Your task to perform on an android device: Turn off the flashlight Image 0: 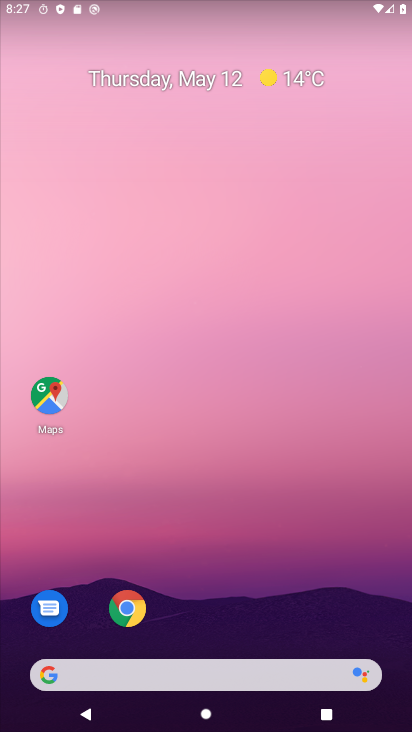
Step 0: drag from (207, 545) to (198, 266)
Your task to perform on an android device: Turn off the flashlight Image 1: 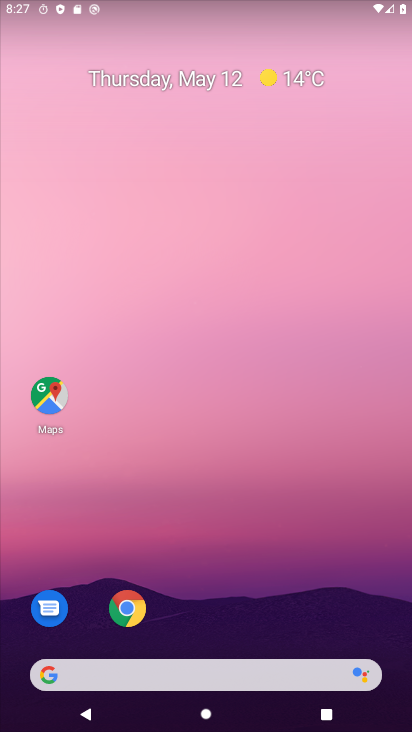
Step 1: drag from (217, 627) to (322, 113)
Your task to perform on an android device: Turn off the flashlight Image 2: 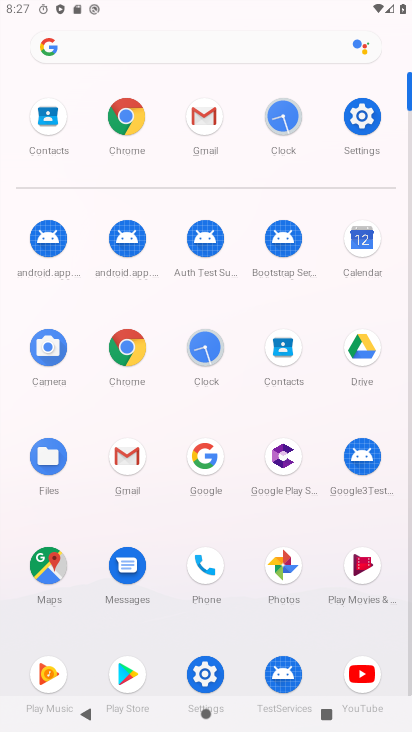
Step 2: click (352, 114)
Your task to perform on an android device: Turn off the flashlight Image 3: 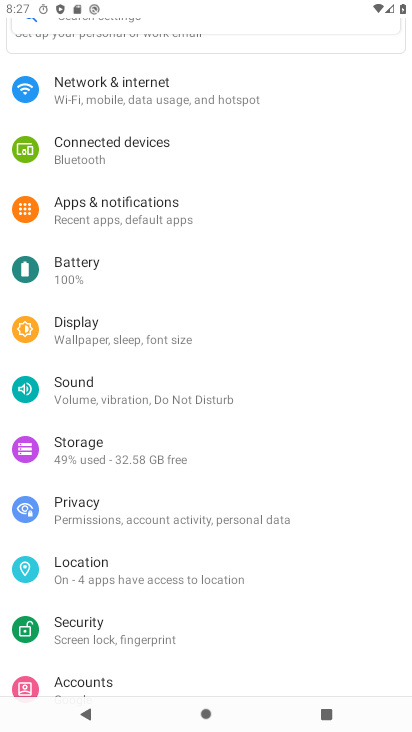
Step 3: click (135, 337)
Your task to perform on an android device: Turn off the flashlight Image 4: 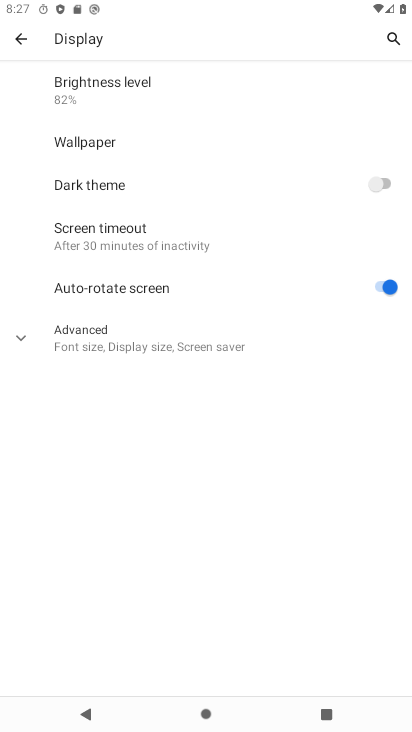
Step 4: drag from (109, 483) to (178, 334)
Your task to perform on an android device: Turn off the flashlight Image 5: 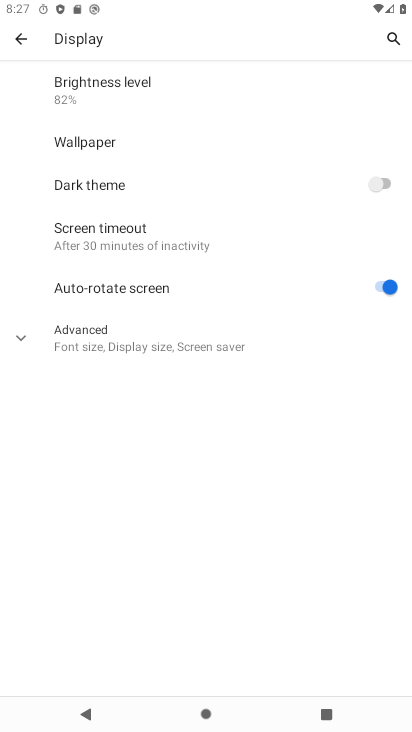
Step 5: press back button
Your task to perform on an android device: Turn off the flashlight Image 6: 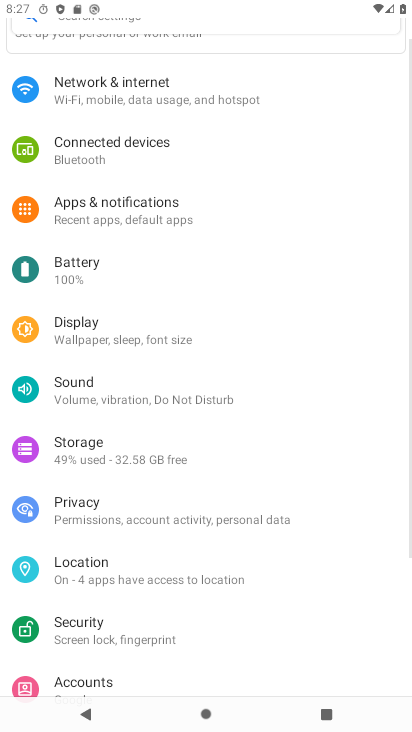
Step 6: drag from (240, 202) to (261, 472)
Your task to perform on an android device: Turn off the flashlight Image 7: 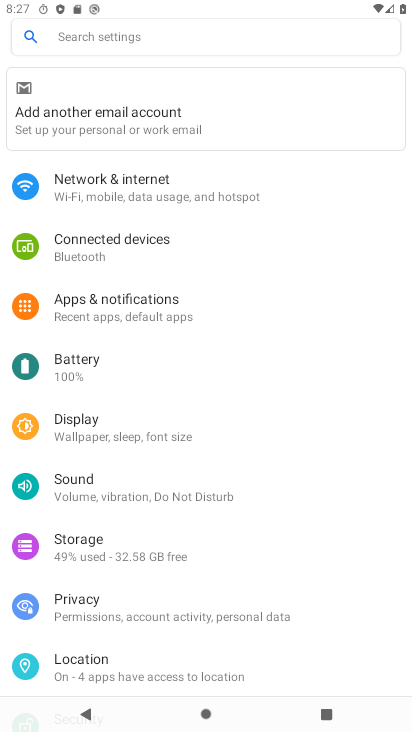
Step 7: drag from (165, 728) to (224, 465)
Your task to perform on an android device: Turn off the flashlight Image 8: 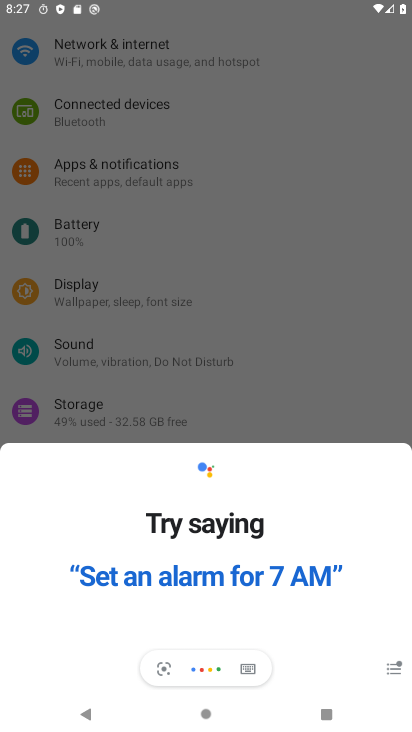
Step 8: press back button
Your task to perform on an android device: Turn off the flashlight Image 9: 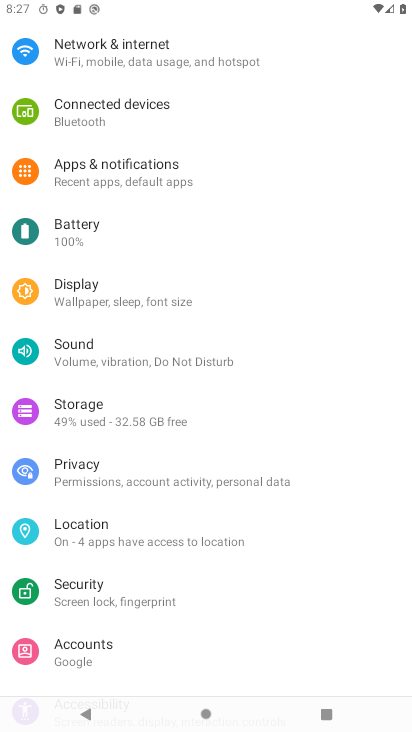
Step 9: press back button
Your task to perform on an android device: Turn off the flashlight Image 10: 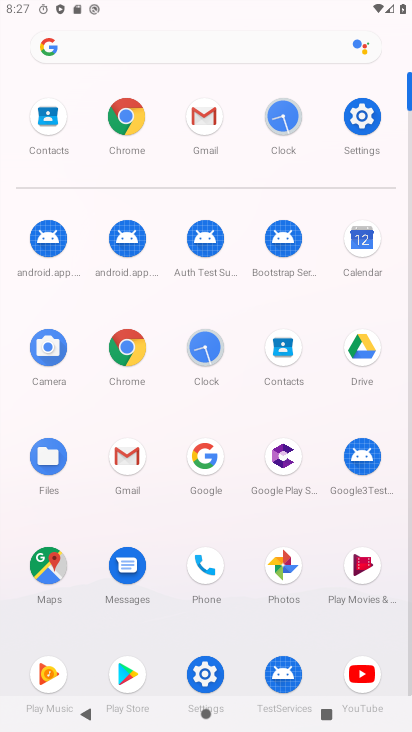
Step 10: drag from (208, 519) to (295, 281)
Your task to perform on an android device: Turn off the flashlight Image 11: 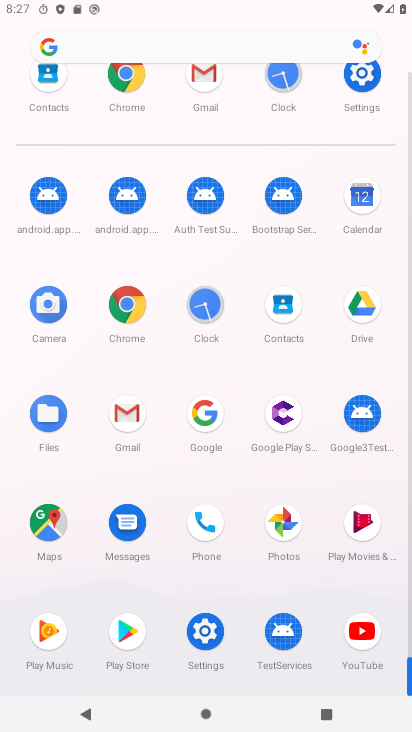
Step 11: drag from (345, 162) to (336, 425)
Your task to perform on an android device: Turn off the flashlight Image 12: 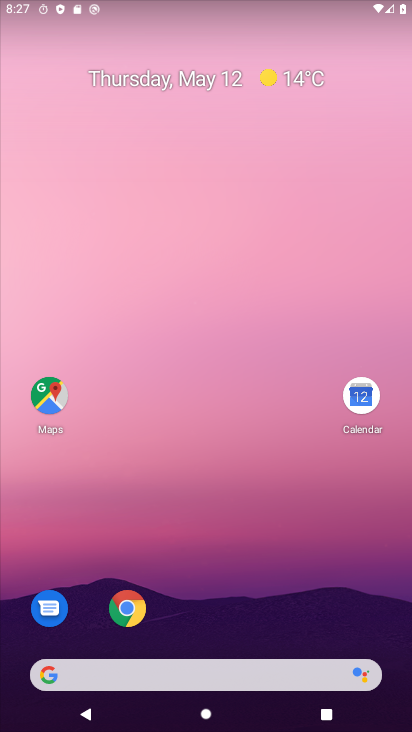
Step 12: drag from (201, 503) to (300, 157)
Your task to perform on an android device: Turn off the flashlight Image 13: 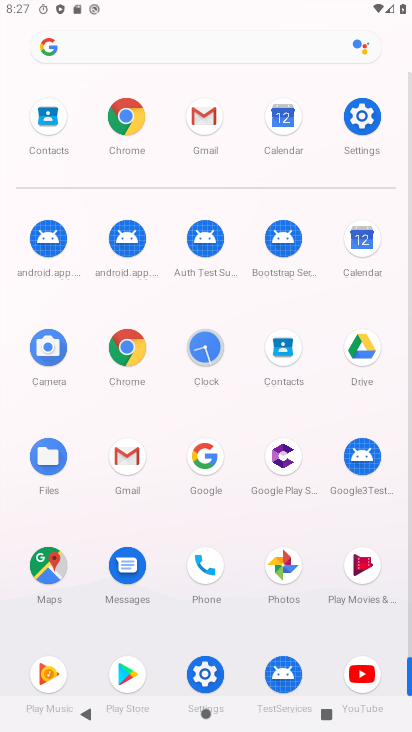
Step 13: click (361, 119)
Your task to perform on an android device: Turn off the flashlight Image 14: 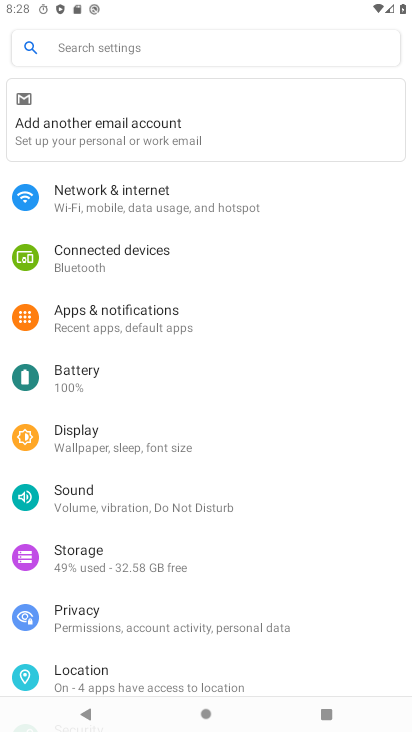
Step 14: click (117, 415)
Your task to perform on an android device: Turn off the flashlight Image 15: 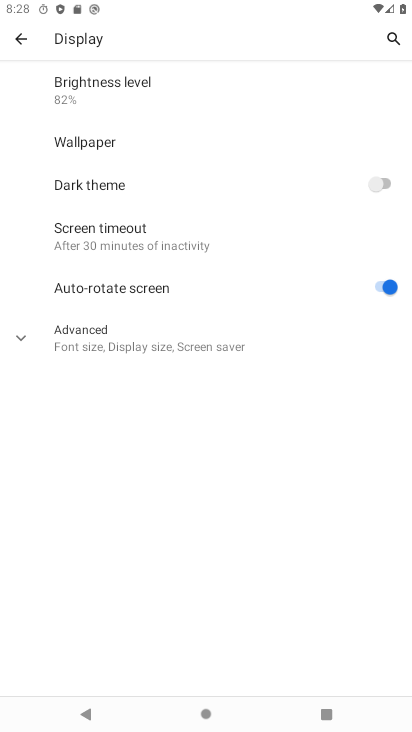
Step 15: drag from (113, 451) to (258, 66)
Your task to perform on an android device: Turn off the flashlight Image 16: 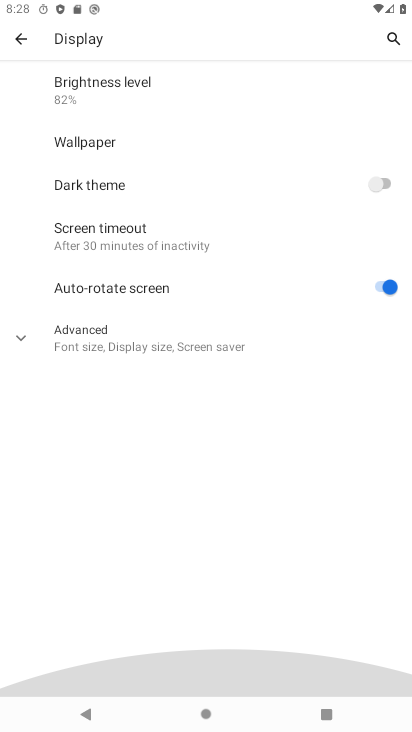
Step 16: drag from (265, 48) to (177, 492)
Your task to perform on an android device: Turn off the flashlight Image 17: 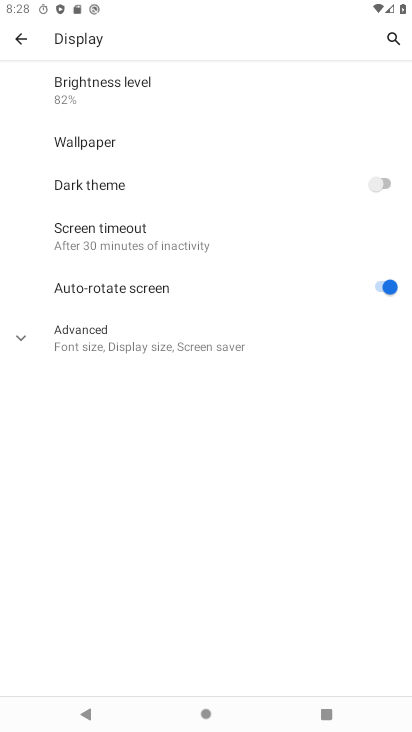
Step 17: click (104, 330)
Your task to perform on an android device: Turn off the flashlight Image 18: 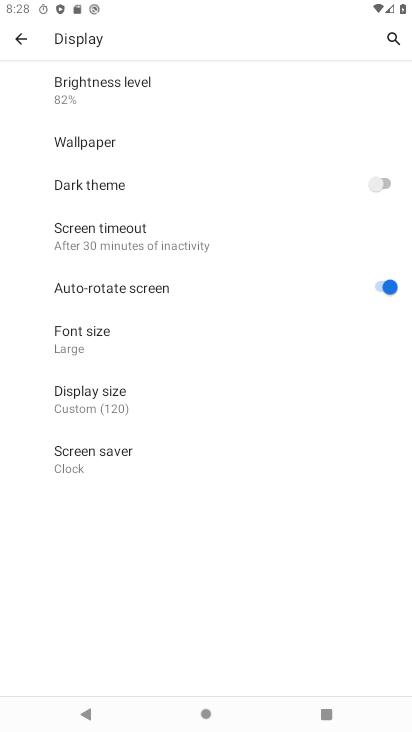
Step 18: task complete